Your task to perform on an android device: add a contact in the contacts app Image 0: 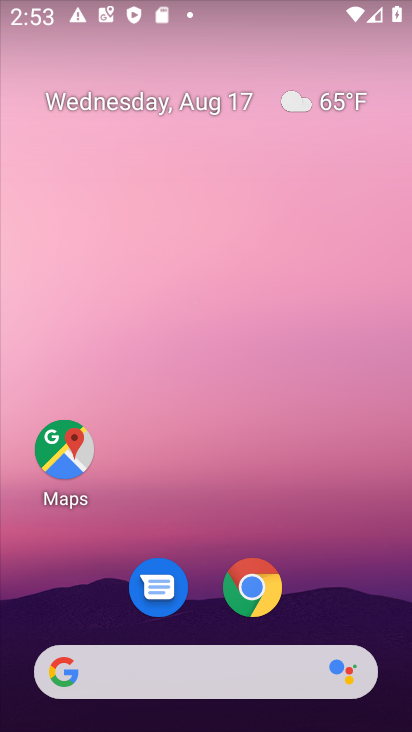
Step 0: drag from (26, 615) to (270, 101)
Your task to perform on an android device: add a contact in the contacts app Image 1: 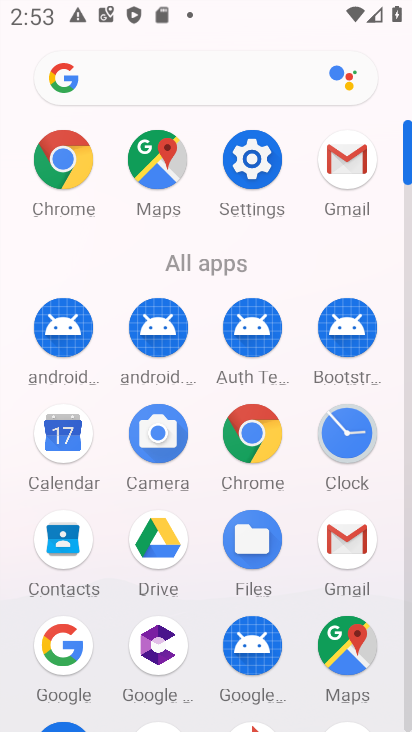
Step 1: drag from (16, 557) to (199, 232)
Your task to perform on an android device: add a contact in the contacts app Image 2: 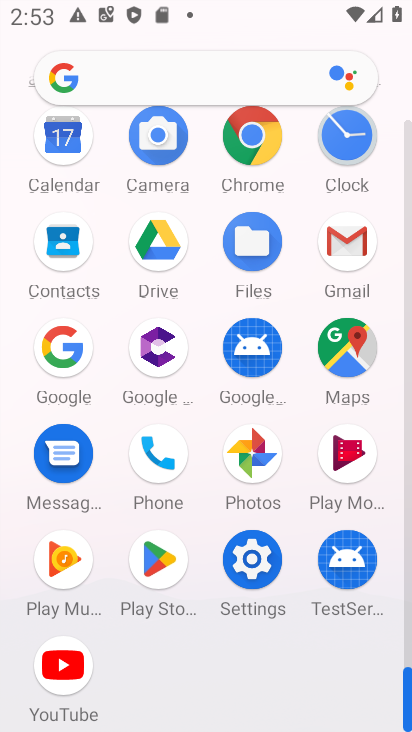
Step 2: click (145, 450)
Your task to perform on an android device: add a contact in the contacts app Image 3: 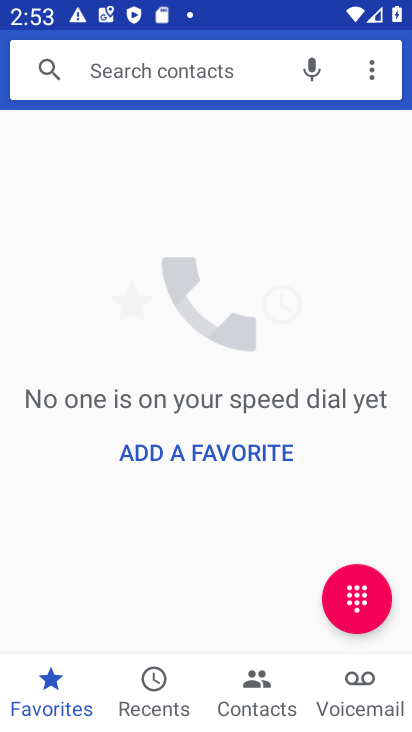
Step 3: click (253, 695)
Your task to perform on an android device: add a contact in the contacts app Image 4: 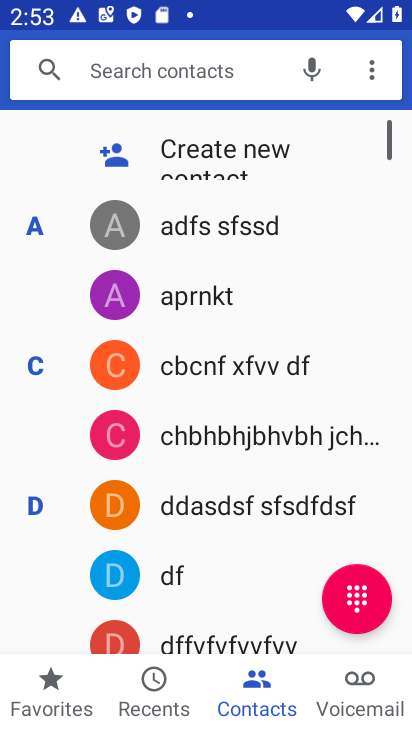
Step 4: click (160, 149)
Your task to perform on an android device: add a contact in the contacts app Image 5: 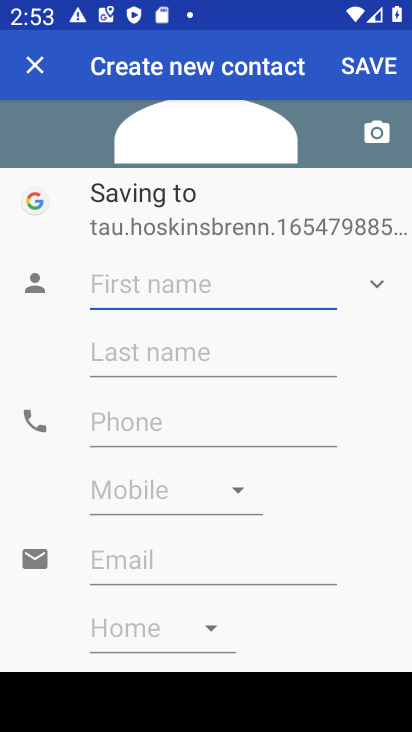
Step 5: click (127, 492)
Your task to perform on an android device: add a contact in the contacts app Image 6: 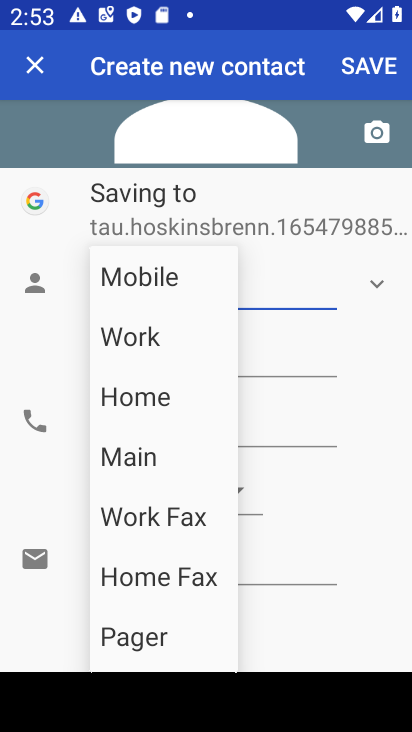
Step 6: click (392, 483)
Your task to perform on an android device: add a contact in the contacts app Image 7: 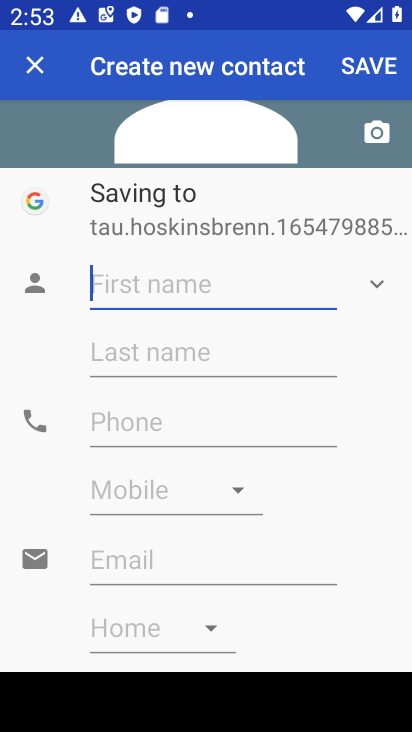
Step 7: click (101, 486)
Your task to perform on an android device: add a contact in the contacts app Image 8: 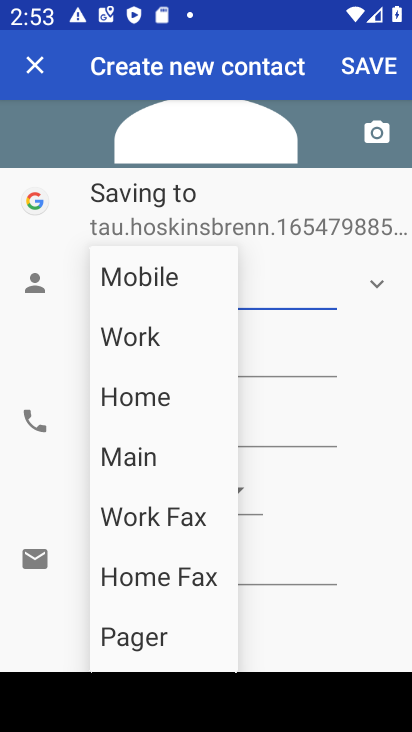
Step 8: click (396, 511)
Your task to perform on an android device: add a contact in the contacts app Image 9: 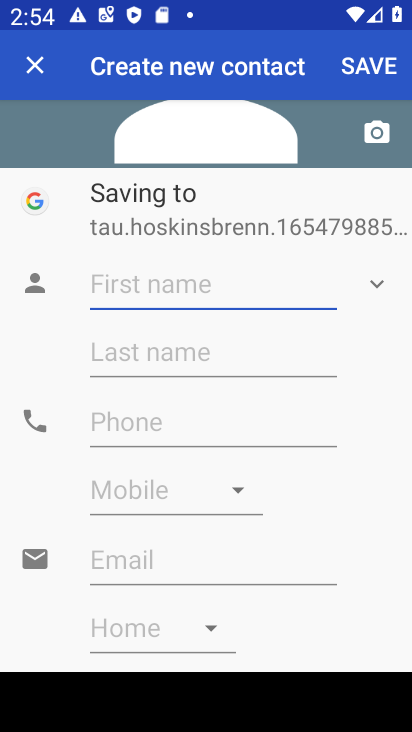
Step 9: click (104, 494)
Your task to perform on an android device: add a contact in the contacts app Image 10: 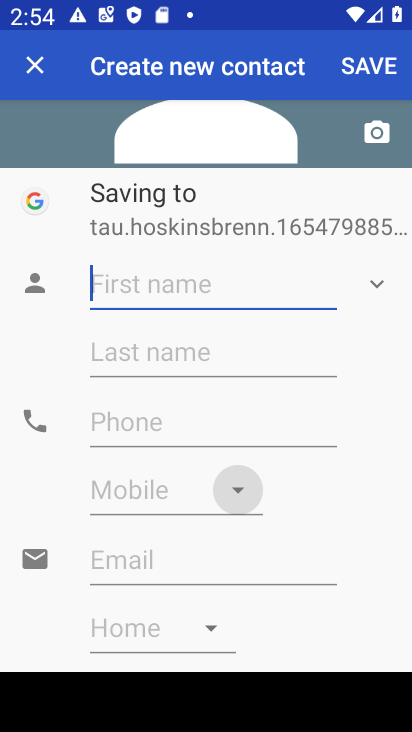
Step 10: click (131, 430)
Your task to perform on an android device: add a contact in the contacts app Image 11: 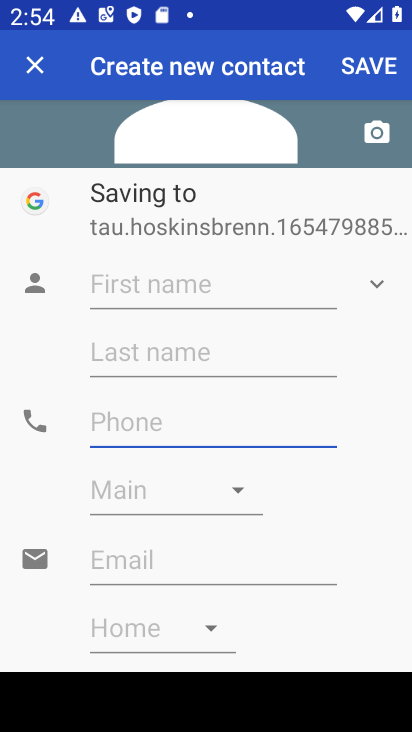
Step 11: type "77565342311"
Your task to perform on an android device: add a contact in the contacts app Image 12: 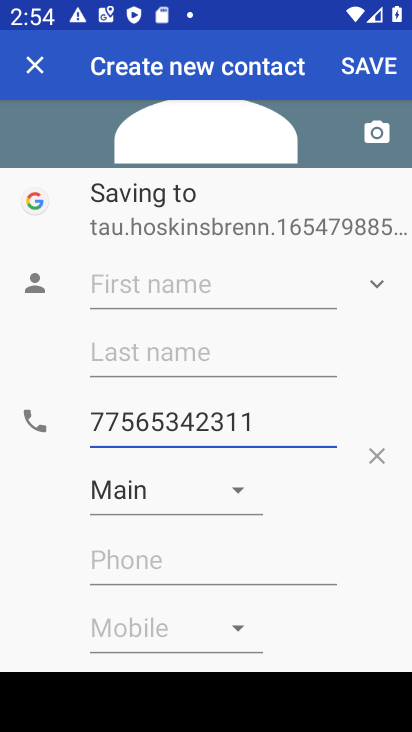
Step 12: click (157, 275)
Your task to perform on an android device: add a contact in the contacts app Image 13: 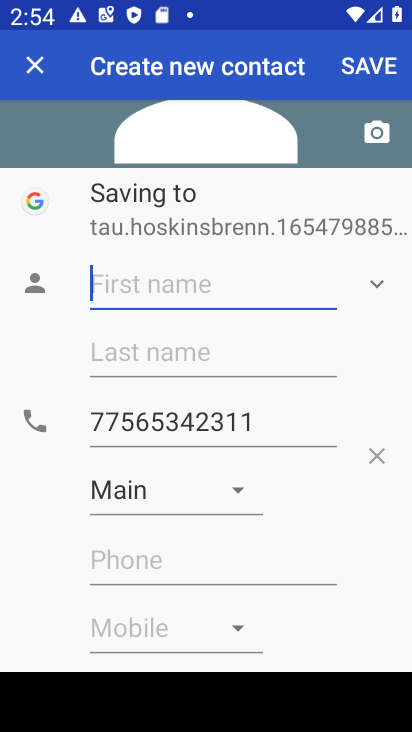
Step 13: type "gvxgx"
Your task to perform on an android device: add a contact in the contacts app Image 14: 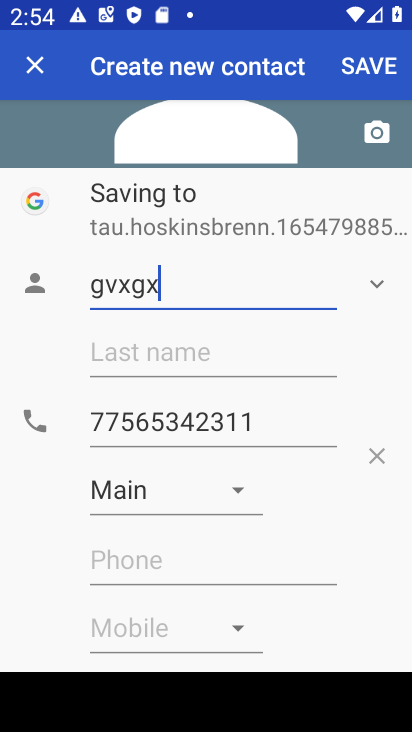
Step 14: type ""
Your task to perform on an android device: add a contact in the contacts app Image 15: 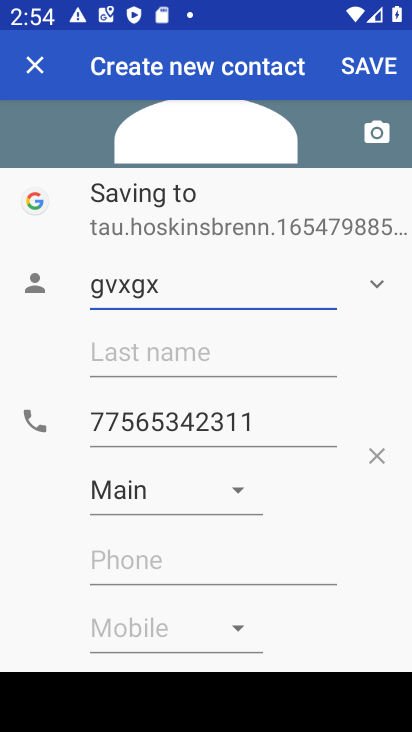
Step 15: click (350, 70)
Your task to perform on an android device: add a contact in the contacts app Image 16: 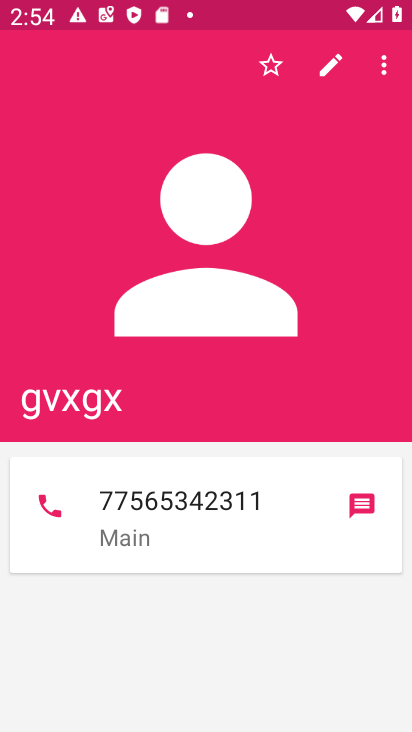
Step 16: task complete